Your task to perform on an android device: manage bookmarks in the chrome app Image 0: 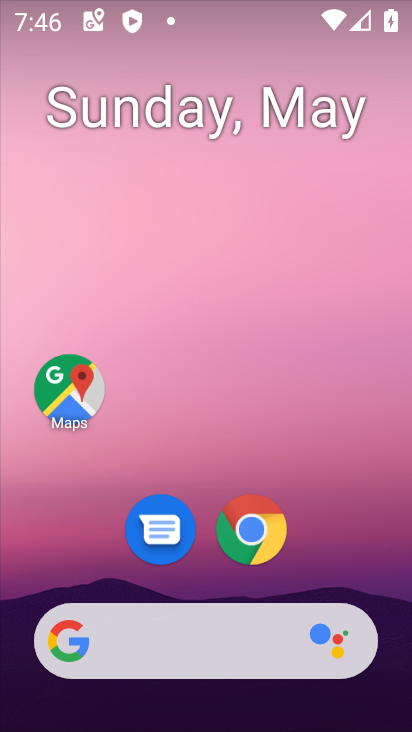
Step 0: click (254, 535)
Your task to perform on an android device: manage bookmarks in the chrome app Image 1: 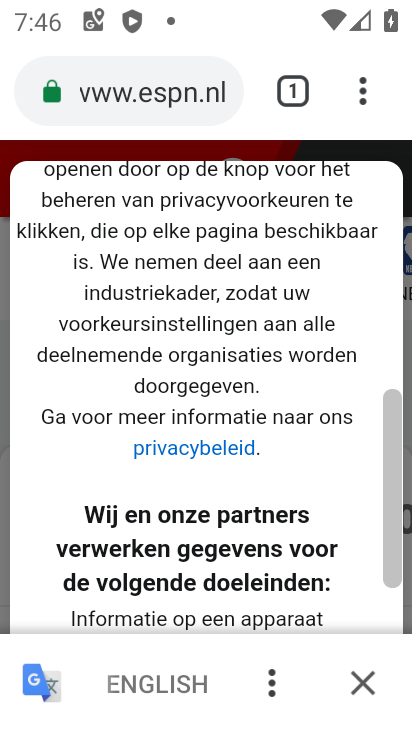
Step 1: click (367, 99)
Your task to perform on an android device: manage bookmarks in the chrome app Image 2: 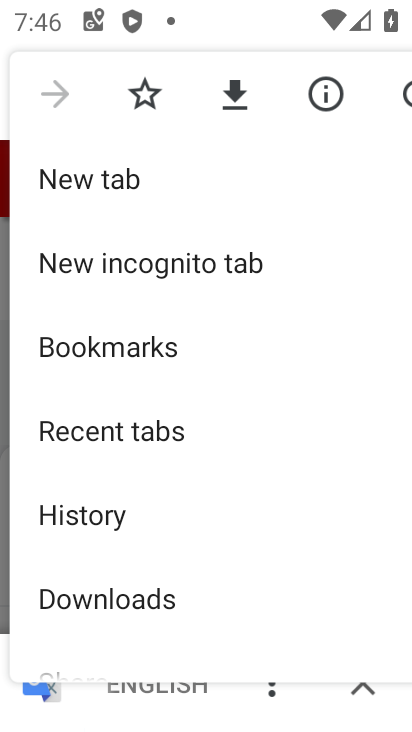
Step 2: click (113, 346)
Your task to perform on an android device: manage bookmarks in the chrome app Image 3: 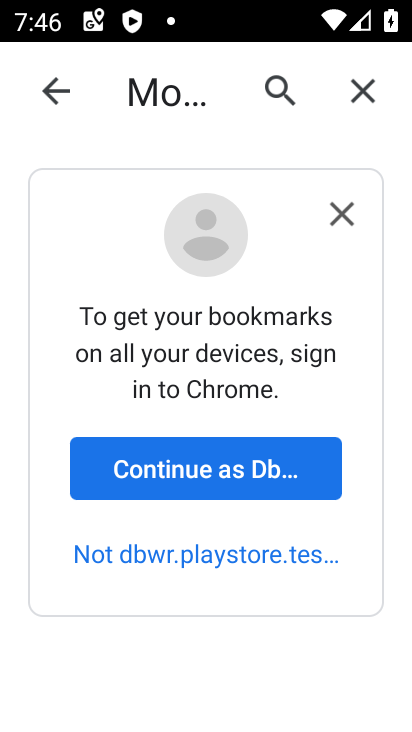
Step 3: click (202, 471)
Your task to perform on an android device: manage bookmarks in the chrome app Image 4: 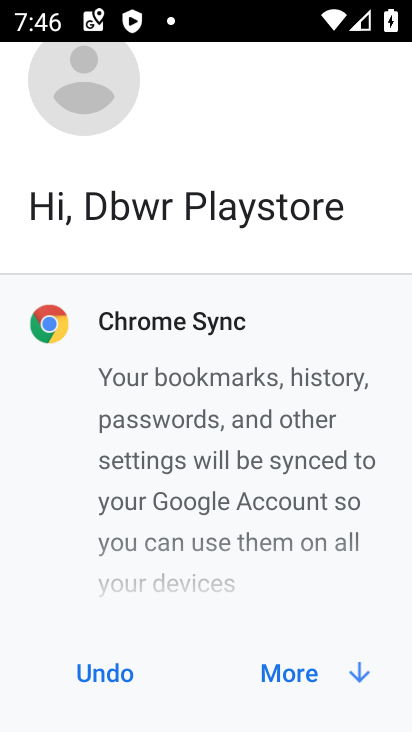
Step 4: click (292, 680)
Your task to perform on an android device: manage bookmarks in the chrome app Image 5: 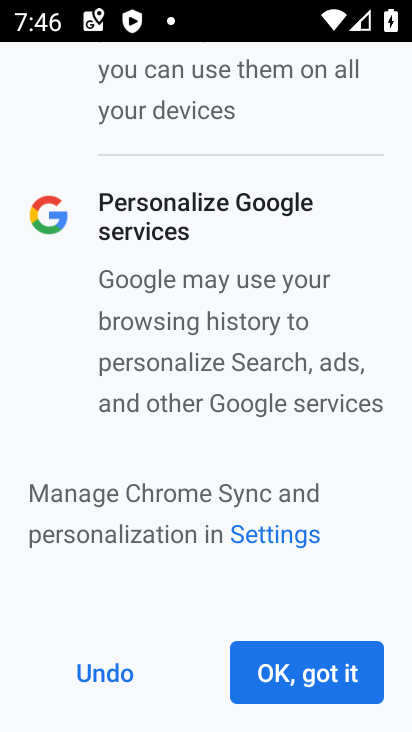
Step 5: click (292, 680)
Your task to perform on an android device: manage bookmarks in the chrome app Image 6: 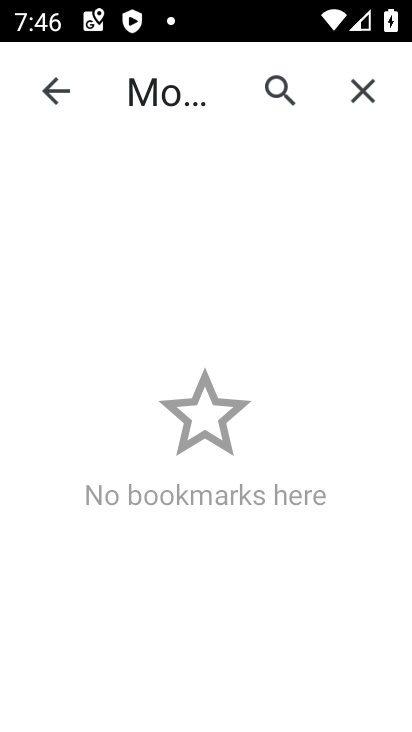
Step 6: drag from (268, 262) to (280, 432)
Your task to perform on an android device: manage bookmarks in the chrome app Image 7: 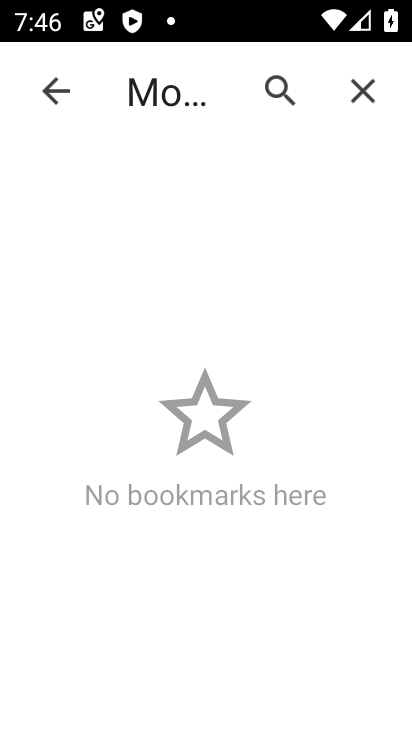
Step 7: drag from (266, 523) to (254, 244)
Your task to perform on an android device: manage bookmarks in the chrome app Image 8: 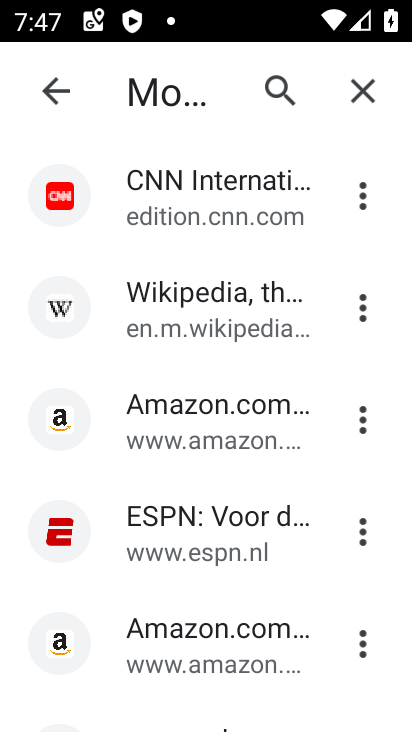
Step 8: click (198, 526)
Your task to perform on an android device: manage bookmarks in the chrome app Image 9: 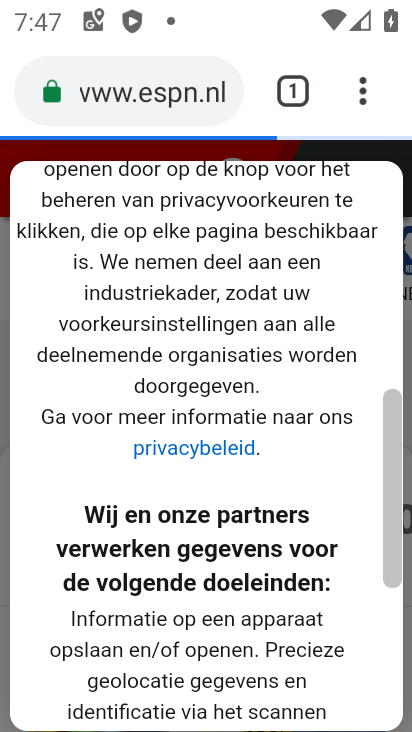
Step 9: click (362, 536)
Your task to perform on an android device: manage bookmarks in the chrome app Image 10: 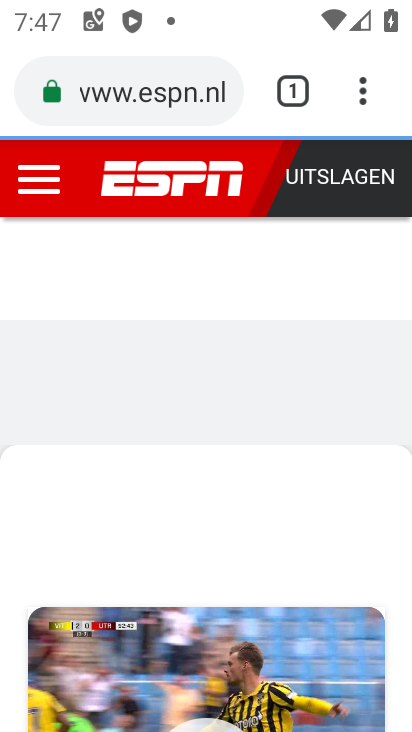
Step 10: click (365, 91)
Your task to perform on an android device: manage bookmarks in the chrome app Image 11: 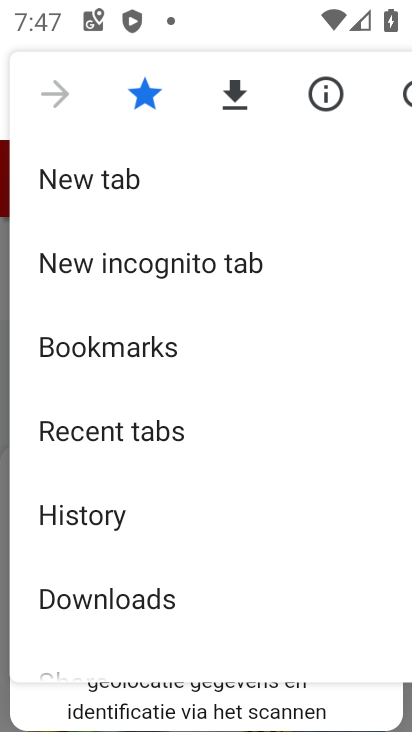
Step 11: click (123, 351)
Your task to perform on an android device: manage bookmarks in the chrome app Image 12: 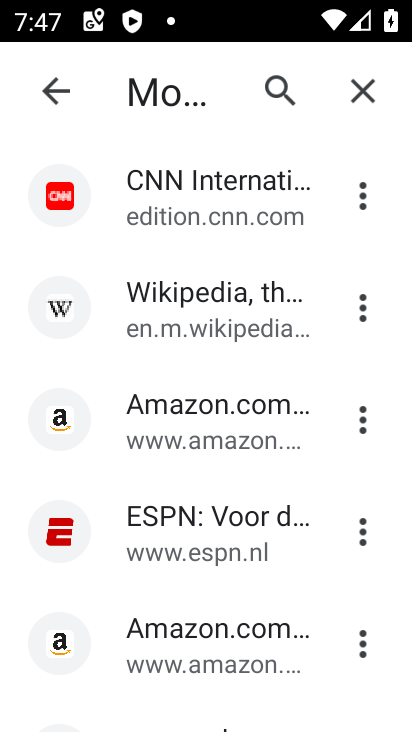
Step 12: click (363, 316)
Your task to perform on an android device: manage bookmarks in the chrome app Image 13: 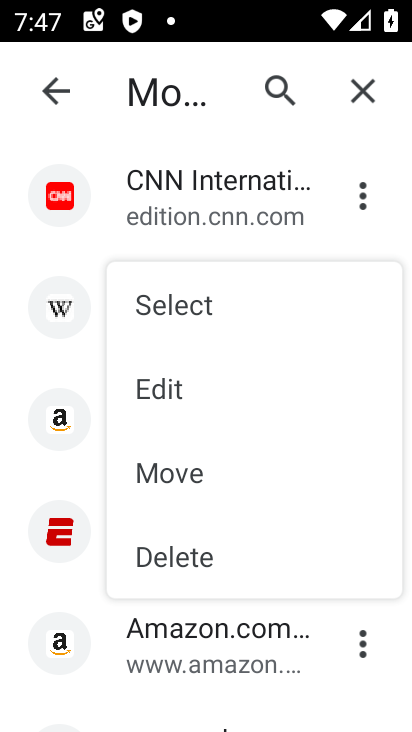
Step 13: click (169, 473)
Your task to perform on an android device: manage bookmarks in the chrome app Image 14: 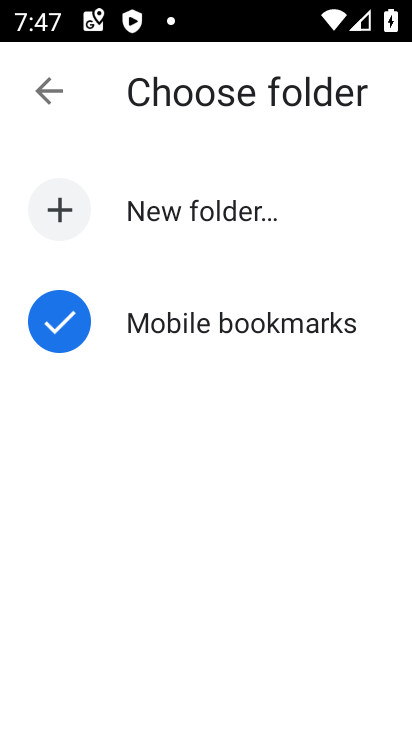
Step 14: click (162, 329)
Your task to perform on an android device: manage bookmarks in the chrome app Image 15: 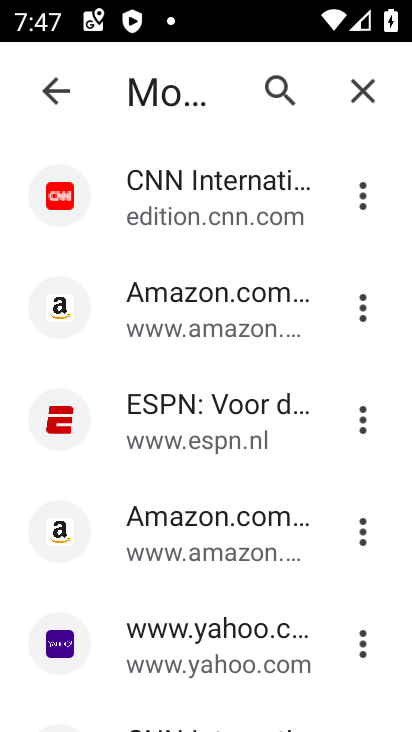
Step 15: task complete